Your task to perform on an android device: What's on my calendar tomorrow? Image 0: 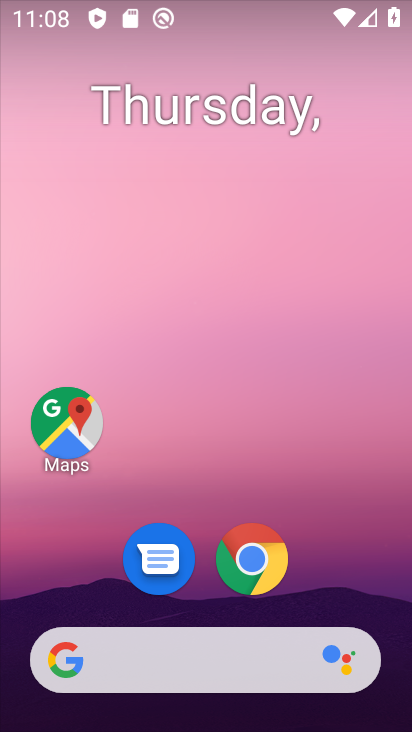
Step 0: drag from (338, 408) to (350, 169)
Your task to perform on an android device: What's on my calendar tomorrow? Image 1: 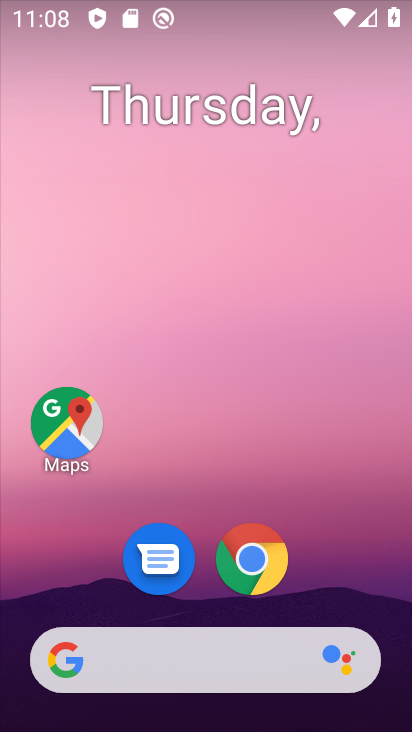
Step 1: drag from (307, 504) to (352, 42)
Your task to perform on an android device: What's on my calendar tomorrow? Image 2: 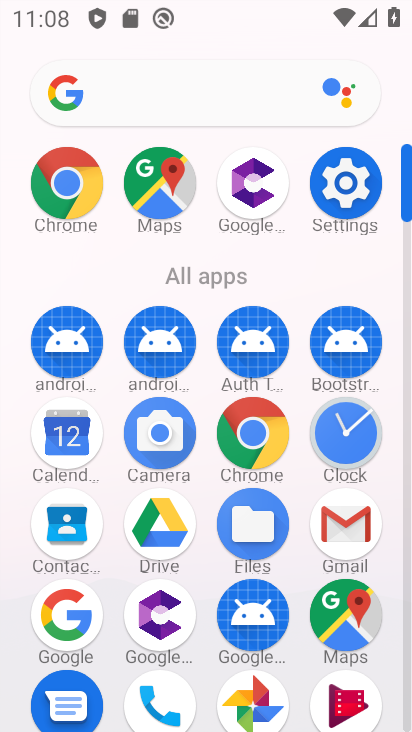
Step 2: click (63, 441)
Your task to perform on an android device: What's on my calendar tomorrow? Image 3: 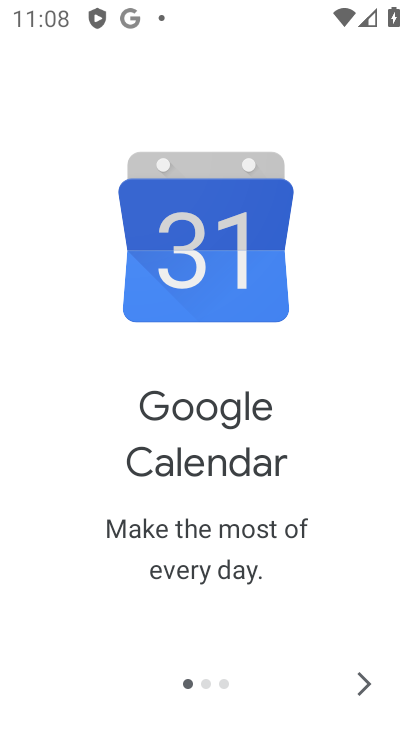
Step 3: click (367, 694)
Your task to perform on an android device: What's on my calendar tomorrow? Image 4: 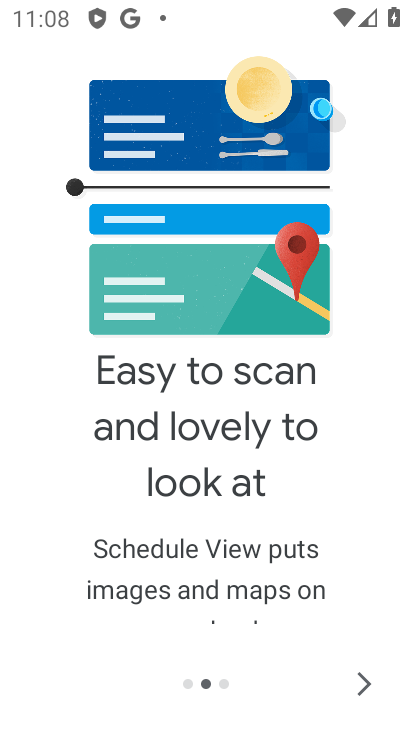
Step 4: click (367, 694)
Your task to perform on an android device: What's on my calendar tomorrow? Image 5: 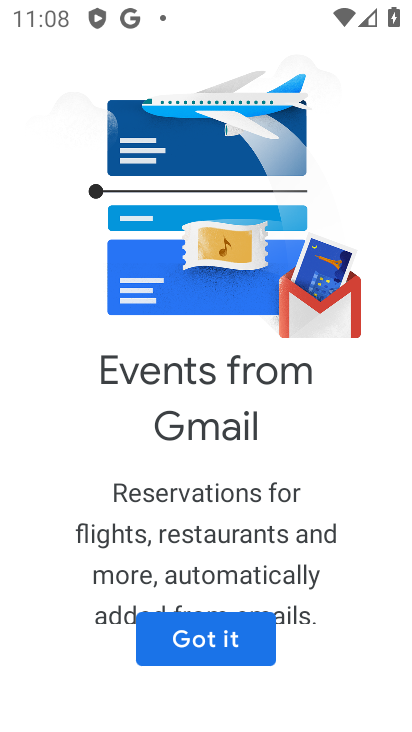
Step 5: click (205, 643)
Your task to perform on an android device: What's on my calendar tomorrow? Image 6: 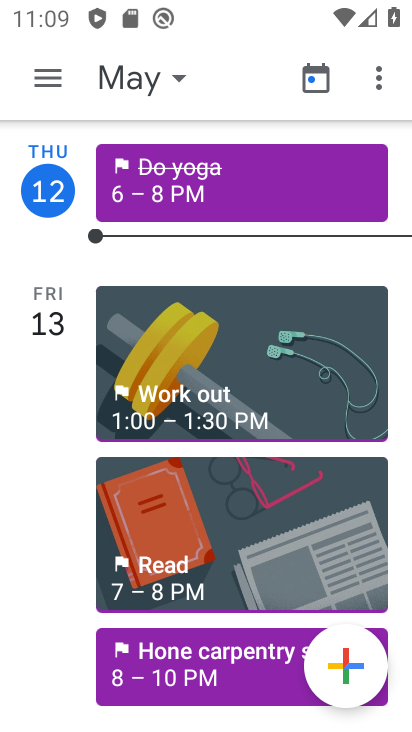
Step 6: click (140, 82)
Your task to perform on an android device: What's on my calendar tomorrow? Image 7: 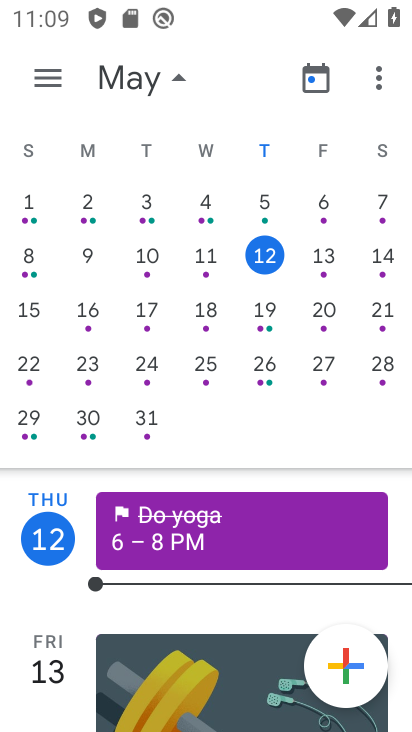
Step 7: click (319, 264)
Your task to perform on an android device: What's on my calendar tomorrow? Image 8: 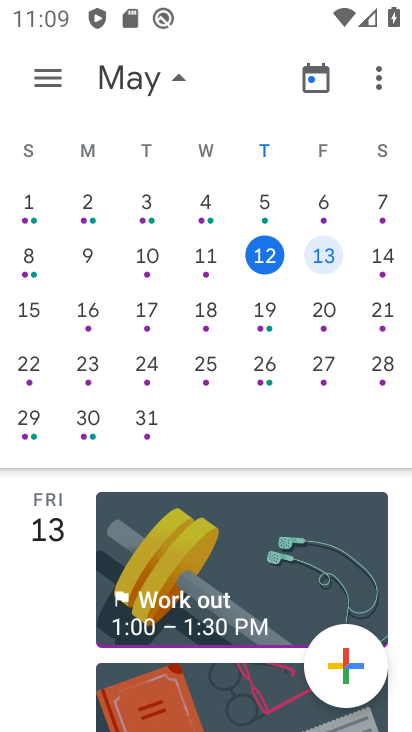
Step 8: task complete